Your task to perform on an android device: turn pop-ups on in chrome Image 0: 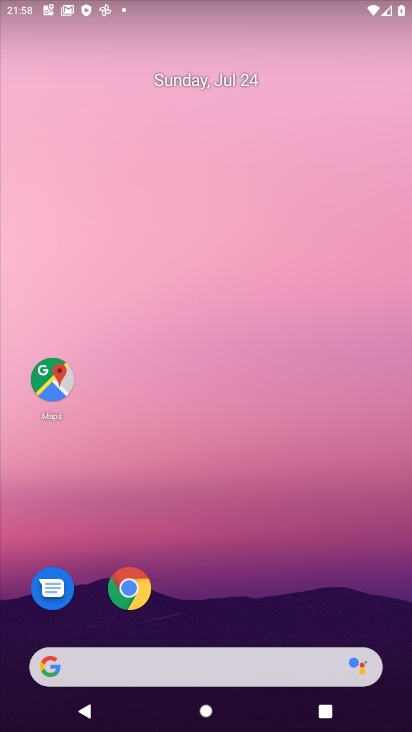
Step 0: click (145, 597)
Your task to perform on an android device: turn pop-ups on in chrome Image 1: 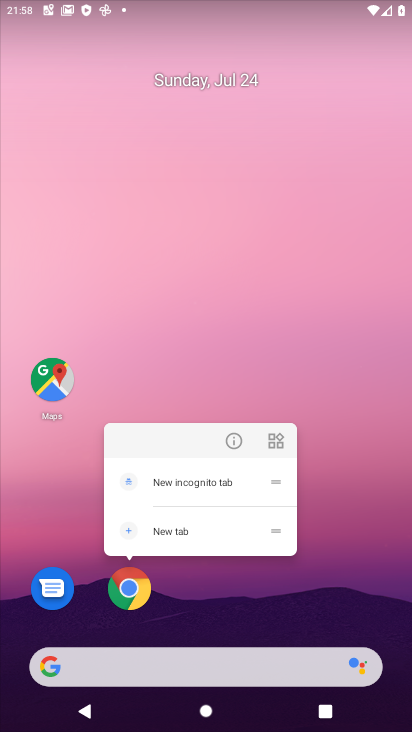
Step 1: click (145, 597)
Your task to perform on an android device: turn pop-ups on in chrome Image 2: 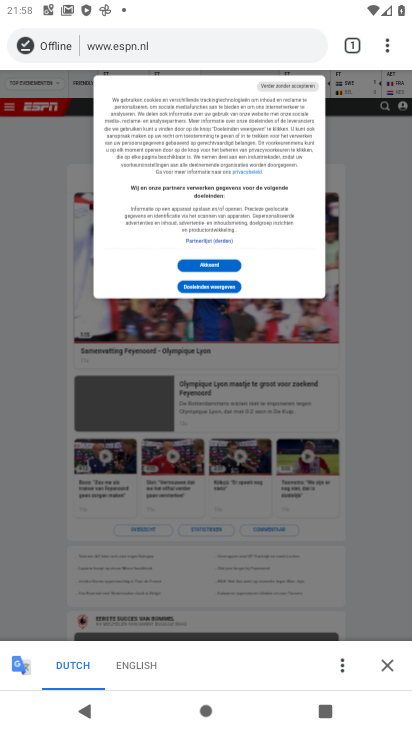
Step 2: drag from (388, 45) to (230, 511)
Your task to perform on an android device: turn pop-ups on in chrome Image 3: 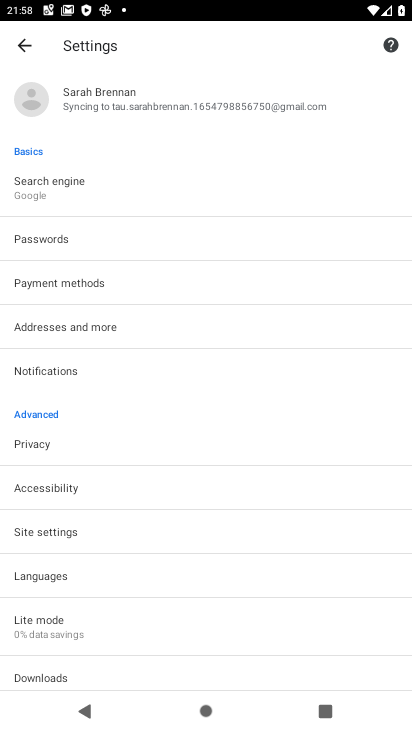
Step 3: click (95, 542)
Your task to perform on an android device: turn pop-ups on in chrome Image 4: 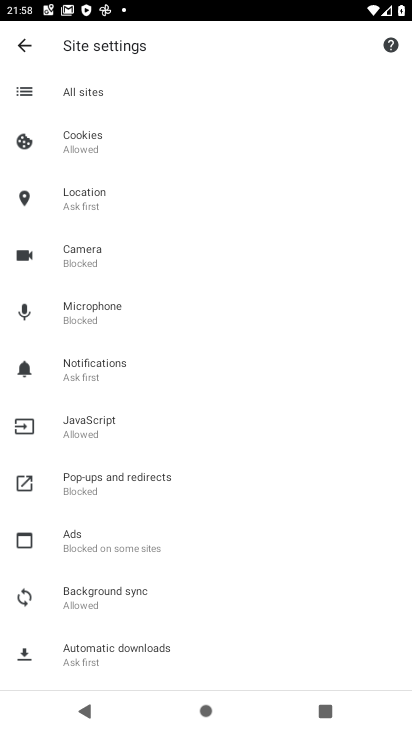
Step 4: click (138, 470)
Your task to perform on an android device: turn pop-ups on in chrome Image 5: 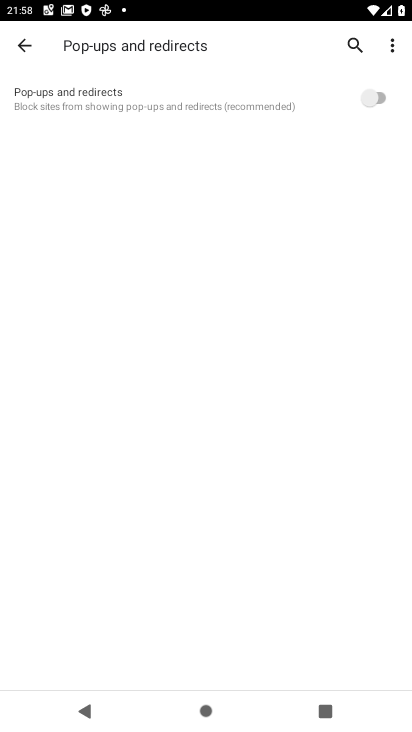
Step 5: click (363, 108)
Your task to perform on an android device: turn pop-ups on in chrome Image 6: 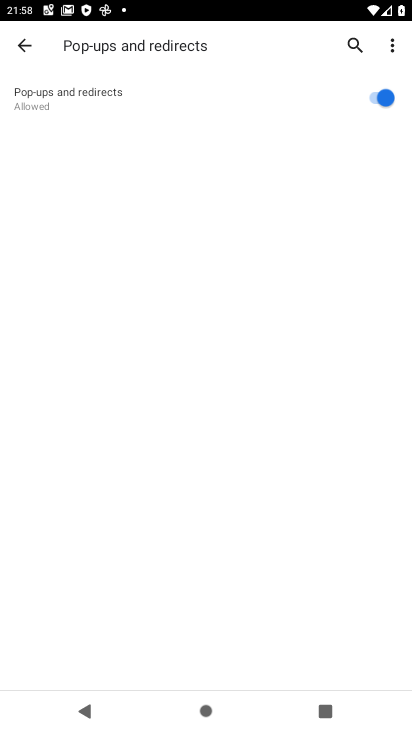
Step 6: task complete